Your task to perform on an android device: Do I have any events this weekend? Image 0: 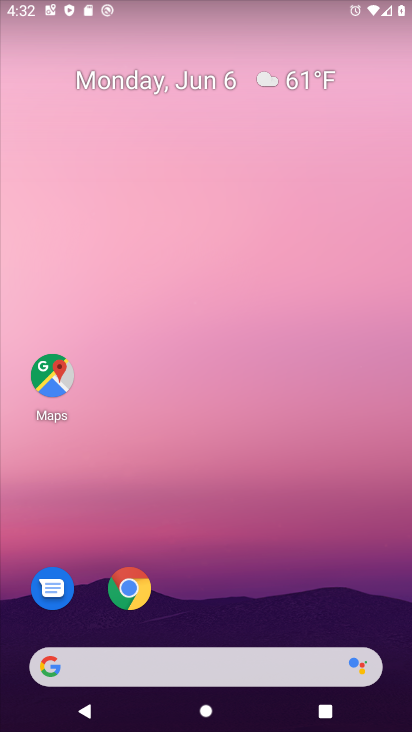
Step 0: drag from (227, 618) to (228, 210)
Your task to perform on an android device: Do I have any events this weekend? Image 1: 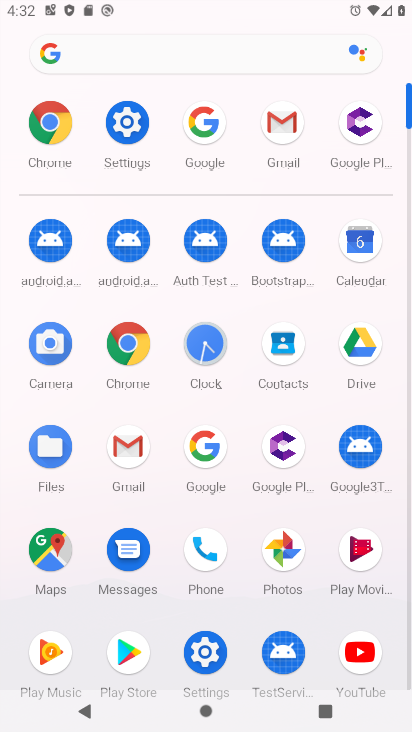
Step 1: click (372, 250)
Your task to perform on an android device: Do I have any events this weekend? Image 2: 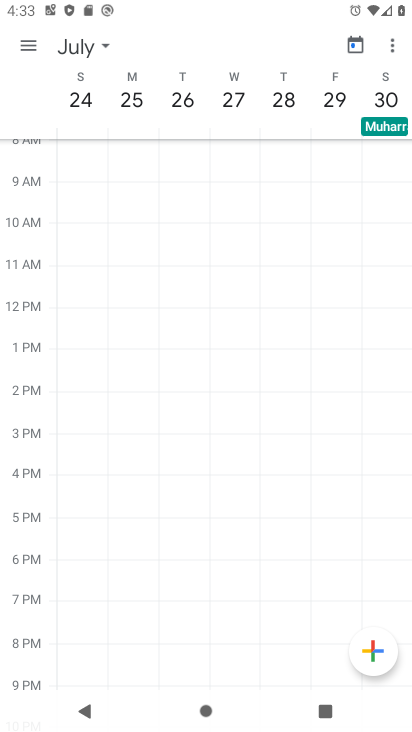
Step 2: click (13, 40)
Your task to perform on an android device: Do I have any events this weekend? Image 3: 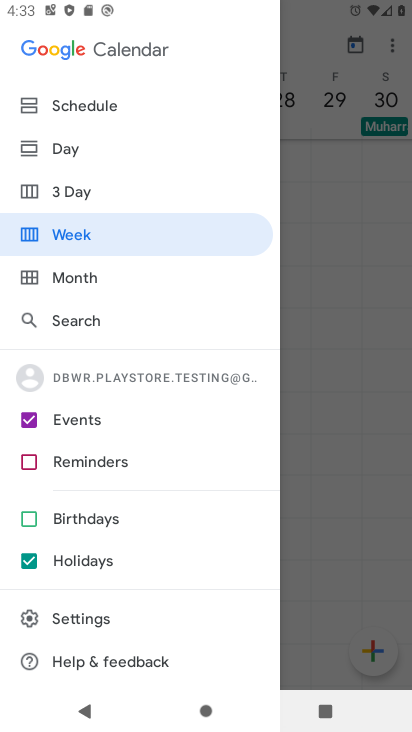
Step 3: click (95, 196)
Your task to perform on an android device: Do I have any events this weekend? Image 4: 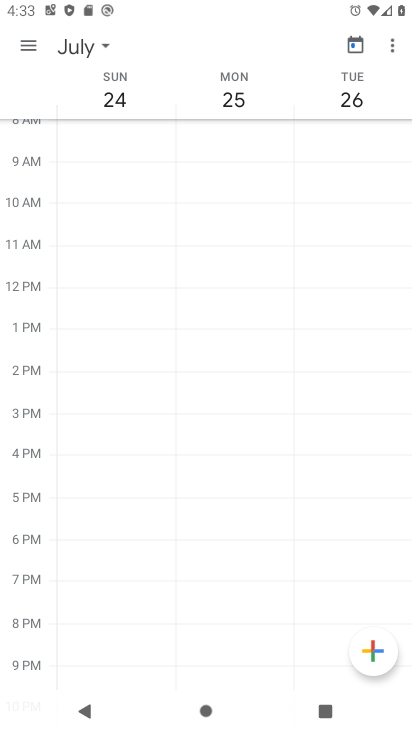
Step 4: click (100, 45)
Your task to perform on an android device: Do I have any events this weekend? Image 5: 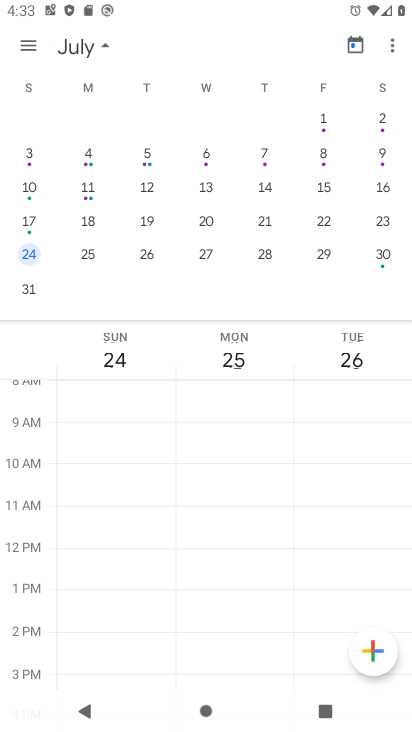
Step 5: drag from (71, 204) to (380, 326)
Your task to perform on an android device: Do I have any events this weekend? Image 6: 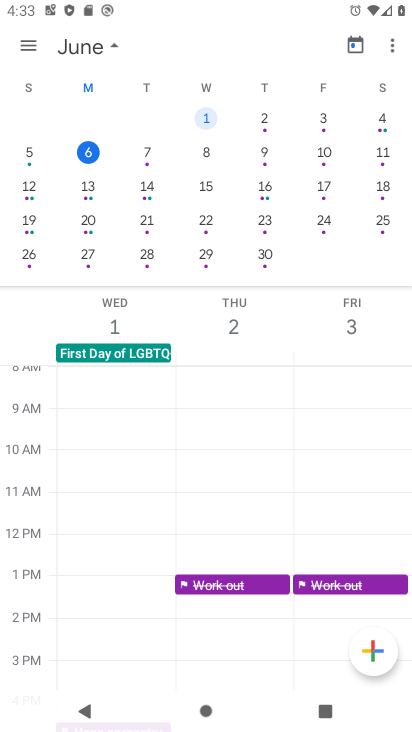
Step 6: click (377, 150)
Your task to perform on an android device: Do I have any events this weekend? Image 7: 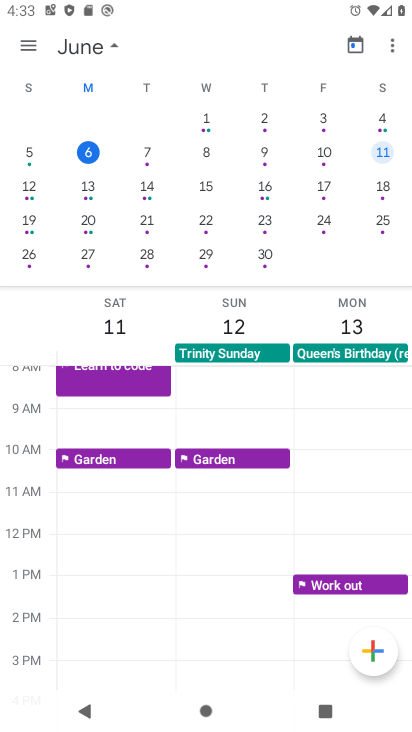
Step 7: task complete